Your task to perform on an android device: Go to Maps Image 0: 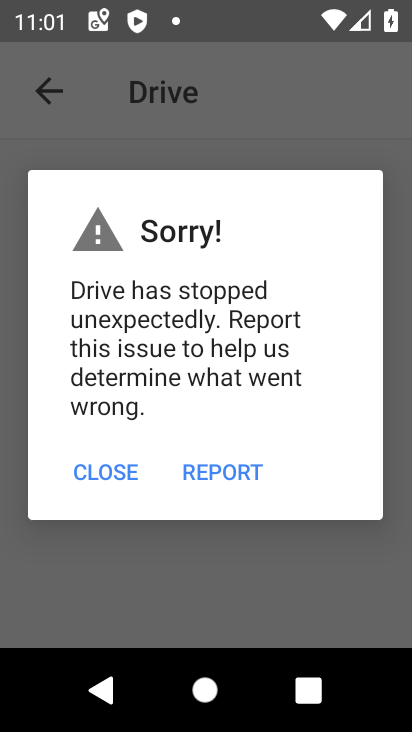
Step 0: press home button
Your task to perform on an android device: Go to Maps Image 1: 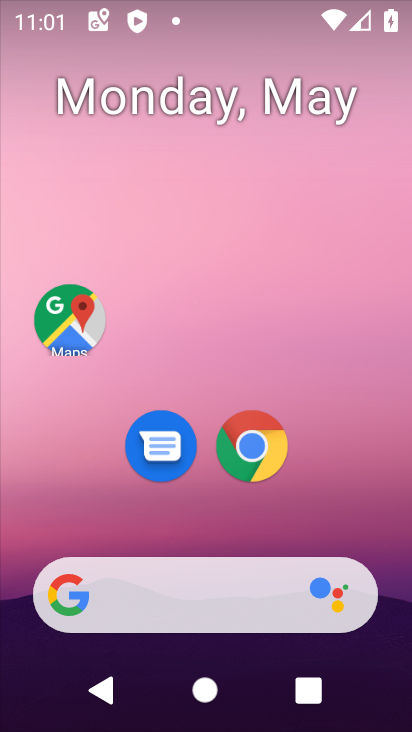
Step 1: click (91, 309)
Your task to perform on an android device: Go to Maps Image 2: 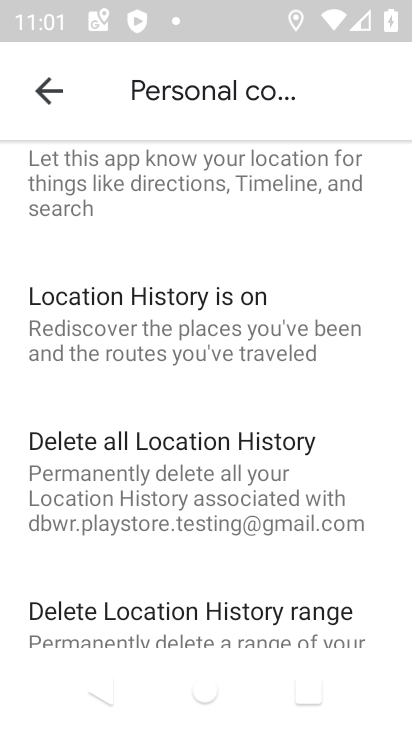
Step 2: click (51, 97)
Your task to perform on an android device: Go to Maps Image 3: 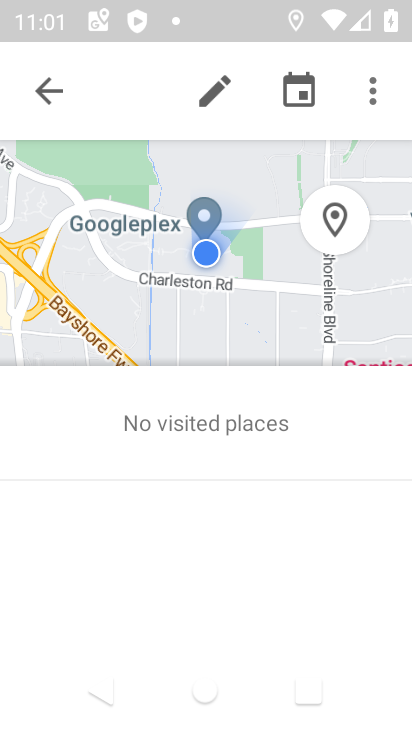
Step 3: task complete